Your task to perform on an android device: see tabs open on other devices in the chrome app Image 0: 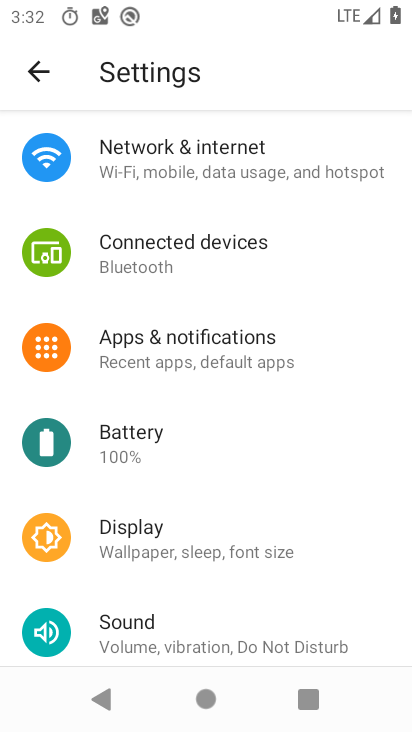
Step 0: press home button
Your task to perform on an android device: see tabs open on other devices in the chrome app Image 1: 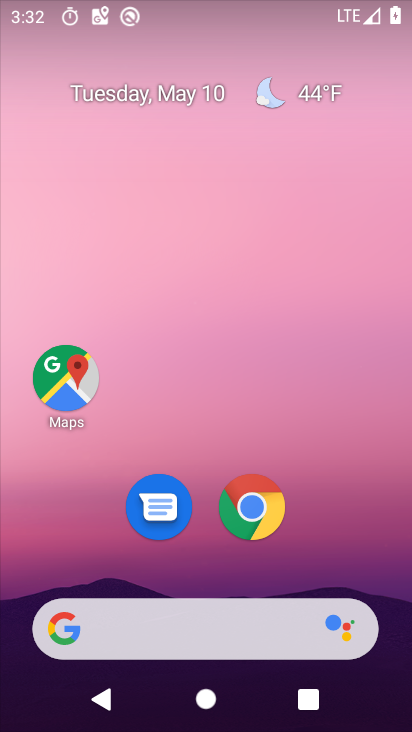
Step 1: click (274, 513)
Your task to perform on an android device: see tabs open on other devices in the chrome app Image 2: 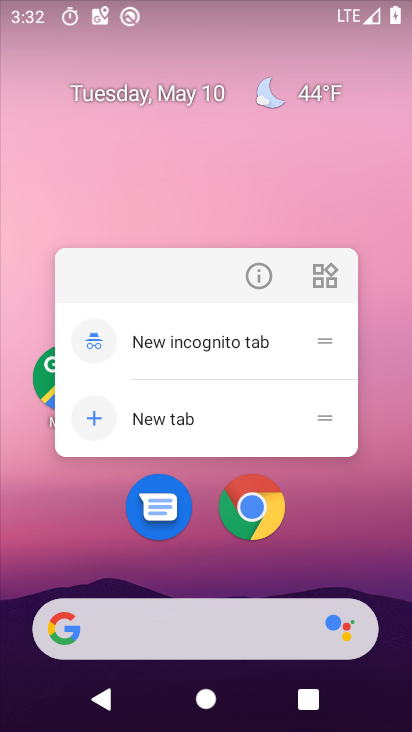
Step 2: click (246, 517)
Your task to perform on an android device: see tabs open on other devices in the chrome app Image 3: 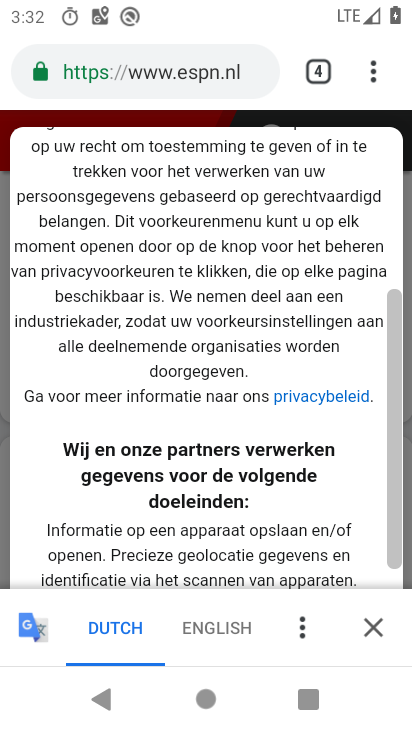
Step 3: click (314, 84)
Your task to perform on an android device: see tabs open on other devices in the chrome app Image 4: 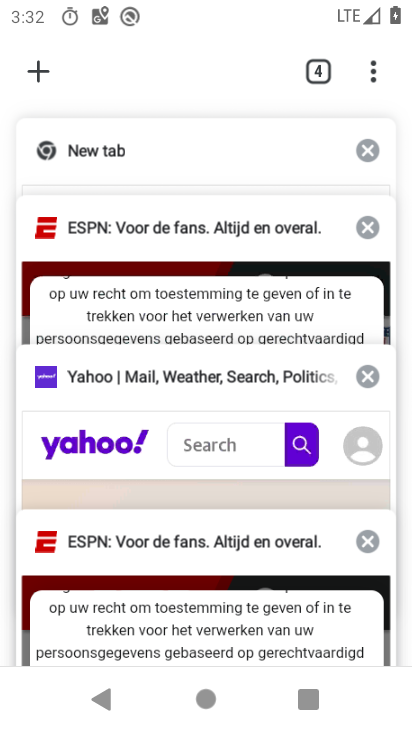
Step 4: task complete